Your task to perform on an android device: turn off translation in the chrome app Image 0: 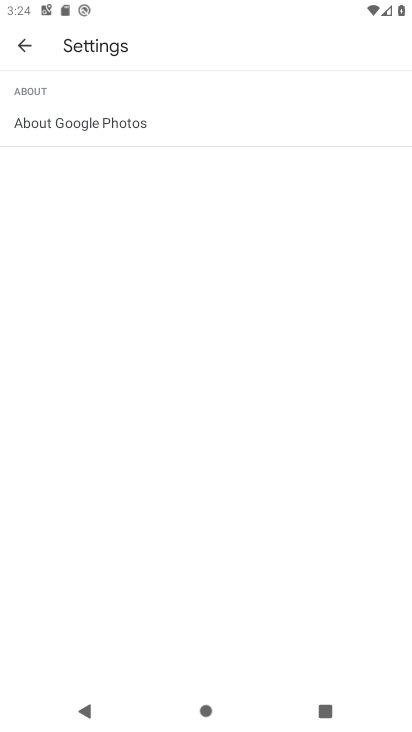
Step 0: drag from (184, 608) to (263, 97)
Your task to perform on an android device: turn off translation in the chrome app Image 1: 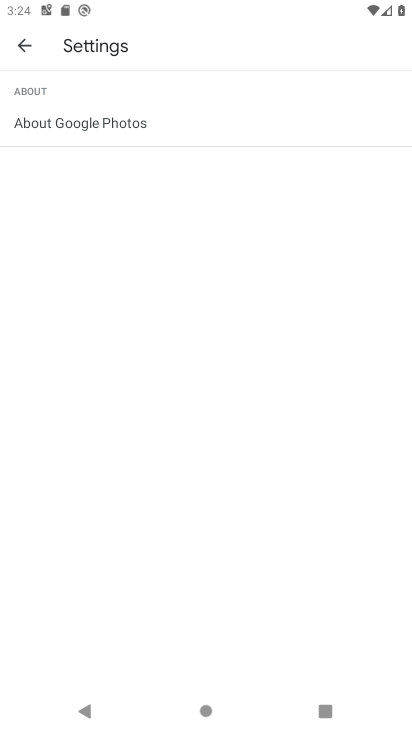
Step 1: press home button
Your task to perform on an android device: turn off translation in the chrome app Image 2: 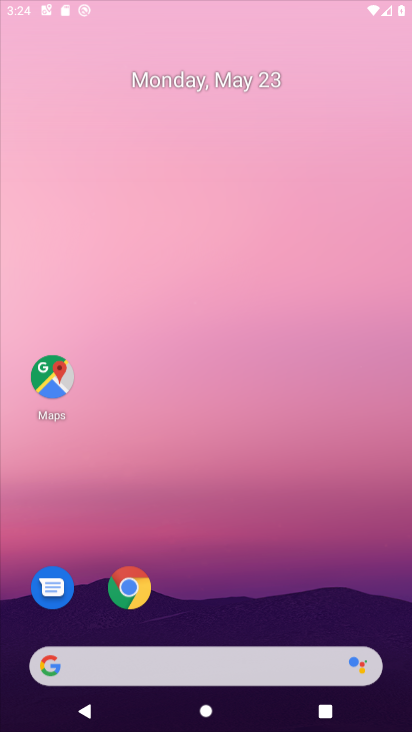
Step 2: drag from (236, 561) to (304, 39)
Your task to perform on an android device: turn off translation in the chrome app Image 3: 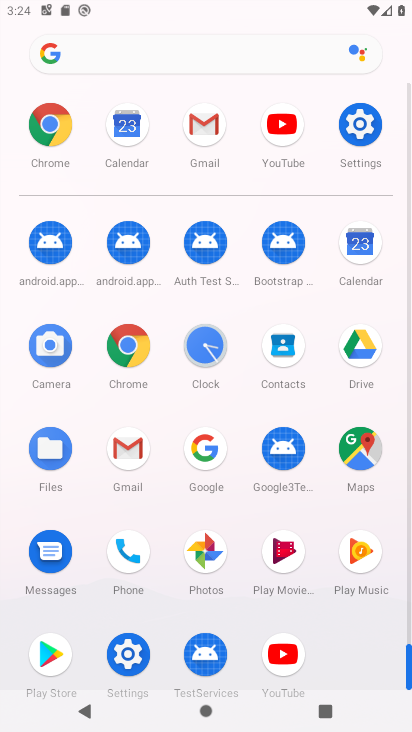
Step 3: click (117, 334)
Your task to perform on an android device: turn off translation in the chrome app Image 4: 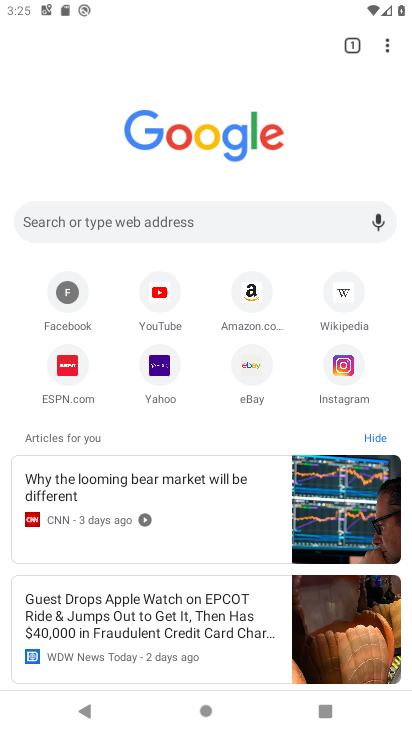
Step 4: click (389, 44)
Your task to perform on an android device: turn off translation in the chrome app Image 5: 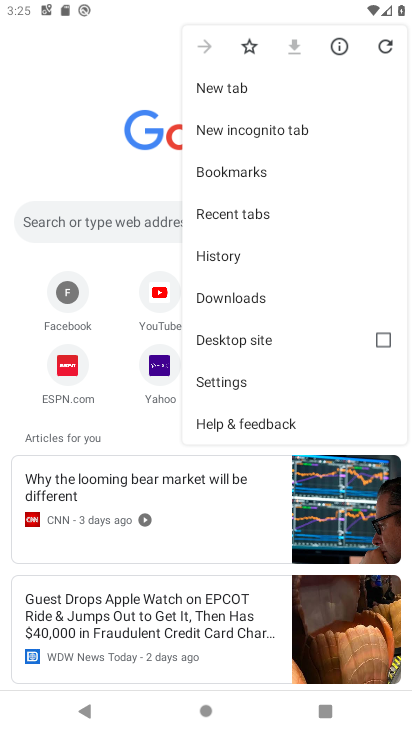
Step 5: click (227, 378)
Your task to perform on an android device: turn off translation in the chrome app Image 6: 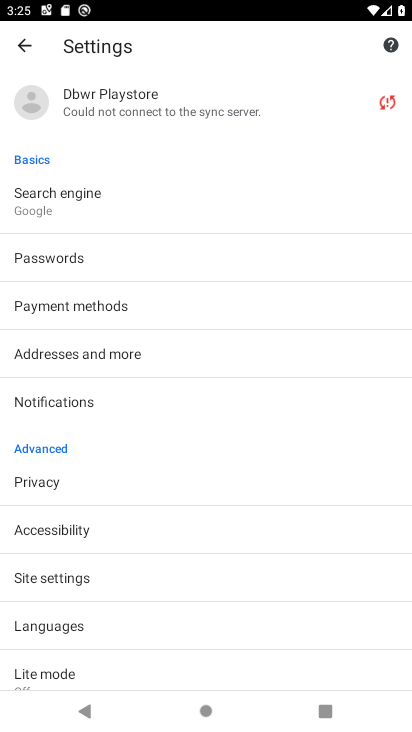
Step 6: drag from (176, 599) to (204, 219)
Your task to perform on an android device: turn off translation in the chrome app Image 7: 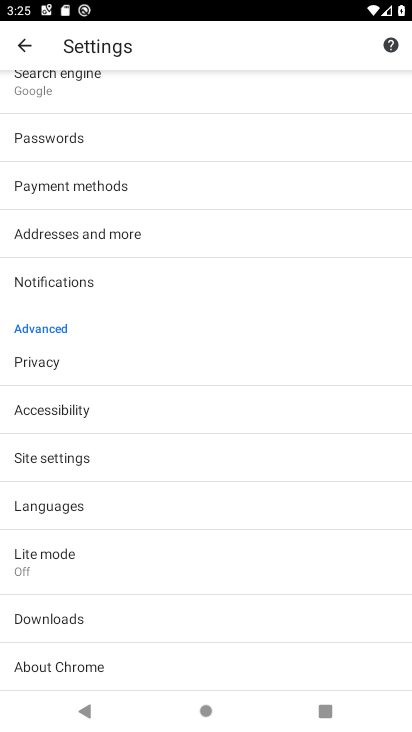
Step 7: click (116, 507)
Your task to perform on an android device: turn off translation in the chrome app Image 8: 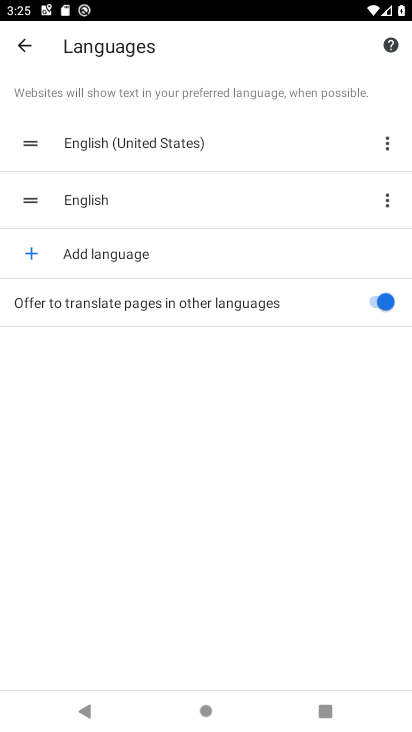
Step 8: click (375, 299)
Your task to perform on an android device: turn off translation in the chrome app Image 9: 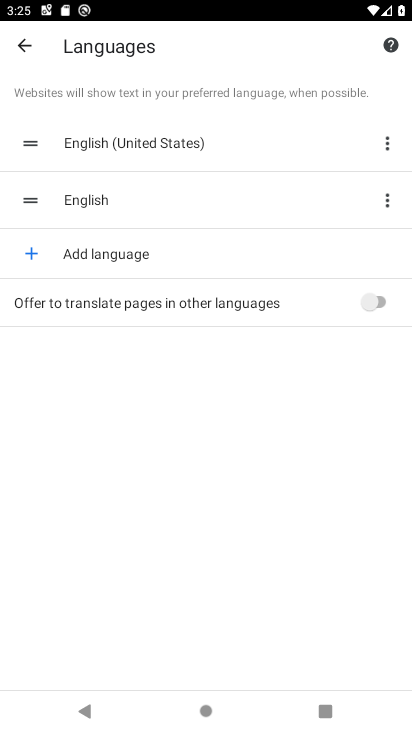
Step 9: task complete